Your task to perform on an android device: Go to eBay Image 0: 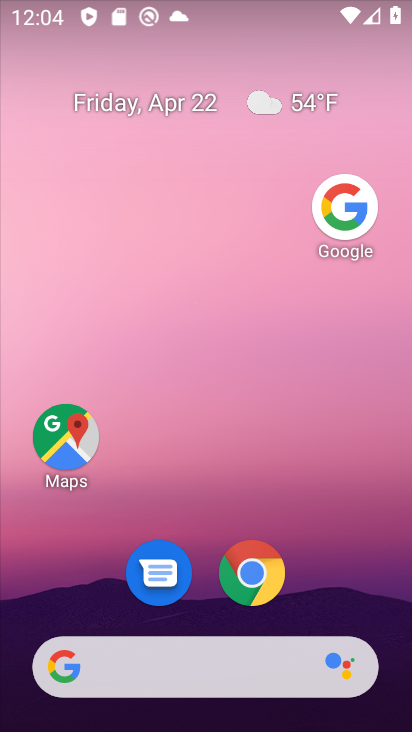
Step 0: drag from (167, 663) to (317, 122)
Your task to perform on an android device: Go to eBay Image 1: 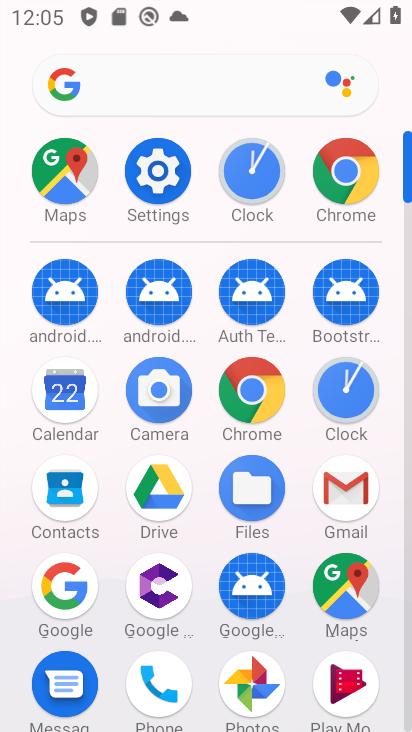
Step 1: click (339, 177)
Your task to perform on an android device: Go to eBay Image 2: 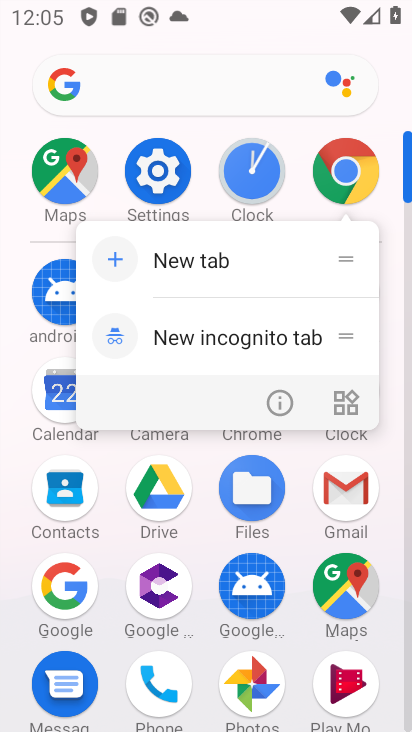
Step 2: click (346, 173)
Your task to perform on an android device: Go to eBay Image 3: 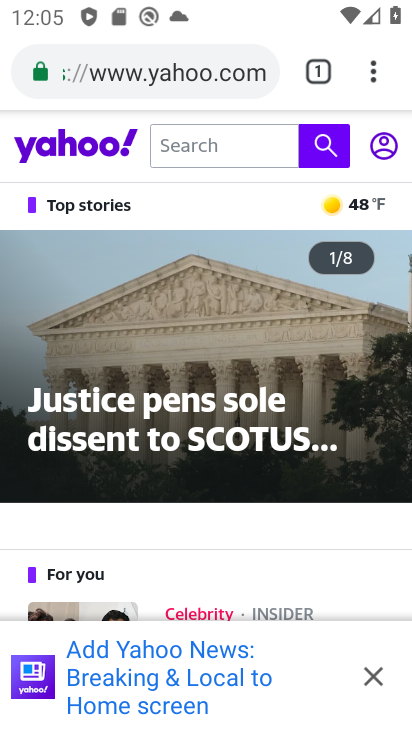
Step 3: drag from (371, 75) to (130, 235)
Your task to perform on an android device: Go to eBay Image 4: 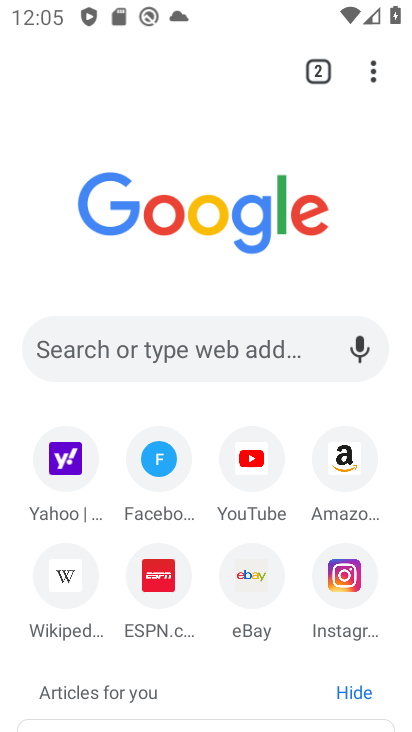
Step 4: click (260, 577)
Your task to perform on an android device: Go to eBay Image 5: 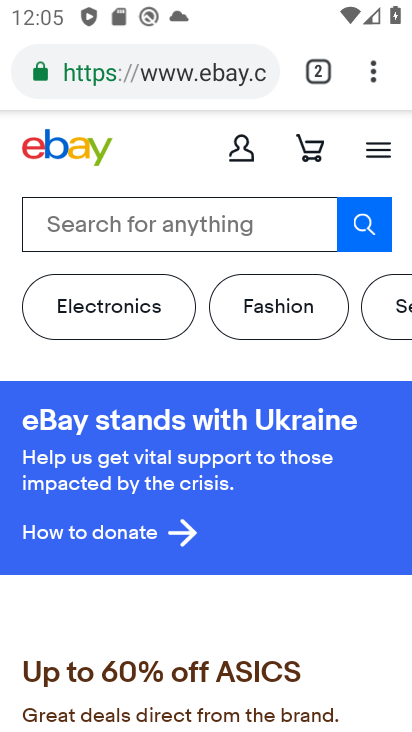
Step 5: task complete